Your task to perform on an android device: Go to wifi settings Image 0: 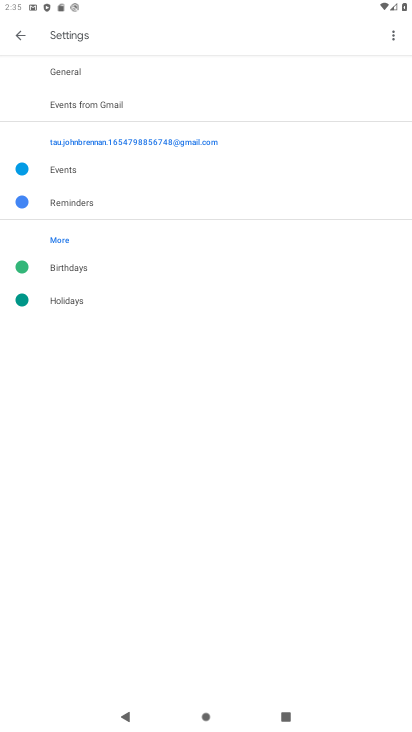
Step 0: press home button
Your task to perform on an android device: Go to wifi settings Image 1: 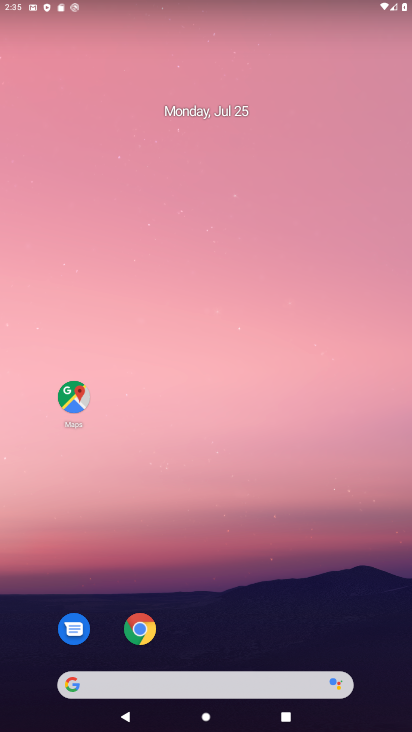
Step 1: drag from (254, 664) to (174, 9)
Your task to perform on an android device: Go to wifi settings Image 2: 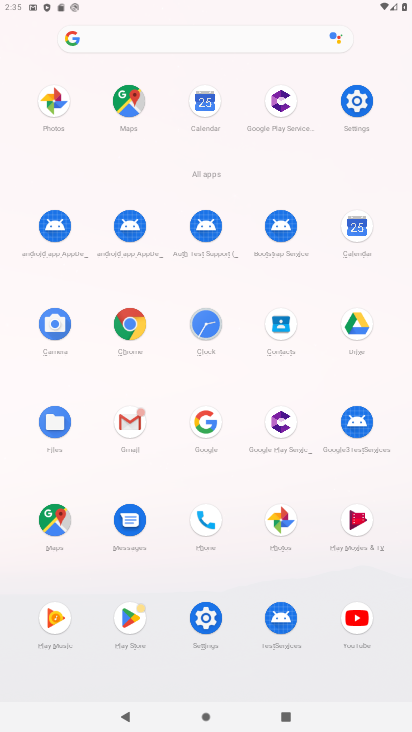
Step 2: click (361, 109)
Your task to perform on an android device: Go to wifi settings Image 3: 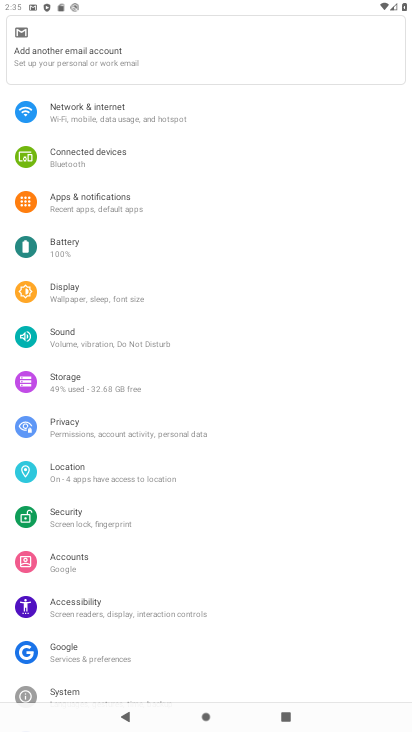
Step 3: click (56, 111)
Your task to perform on an android device: Go to wifi settings Image 4: 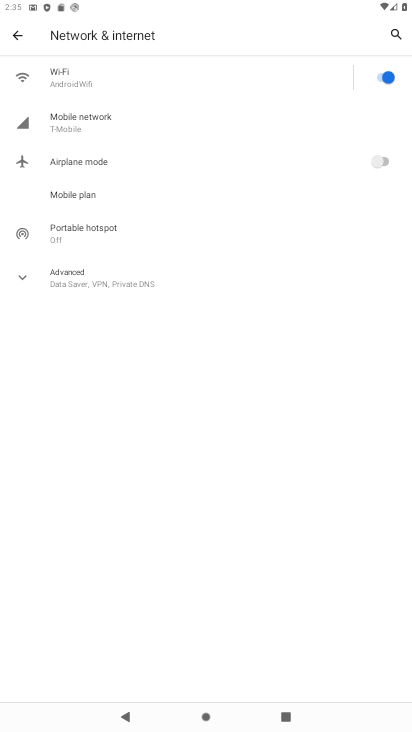
Step 4: click (37, 79)
Your task to perform on an android device: Go to wifi settings Image 5: 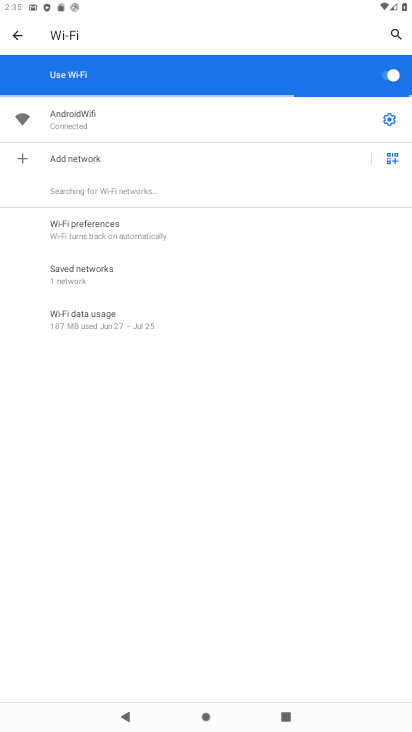
Step 5: task complete